Your task to perform on an android device: Show me the alarms in the clock app Image 0: 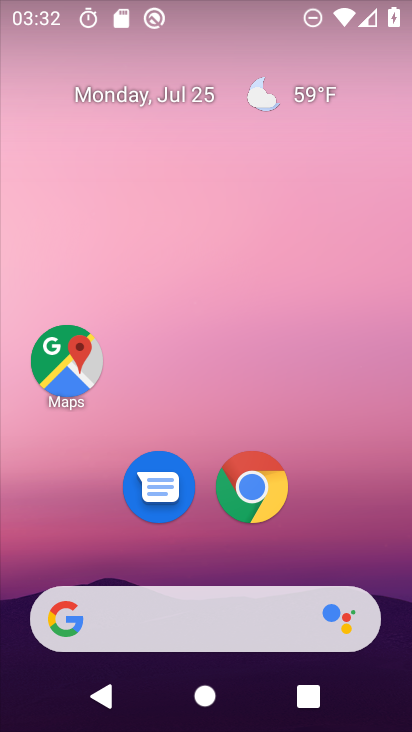
Step 0: drag from (212, 517) to (252, 9)
Your task to perform on an android device: Show me the alarms in the clock app Image 1: 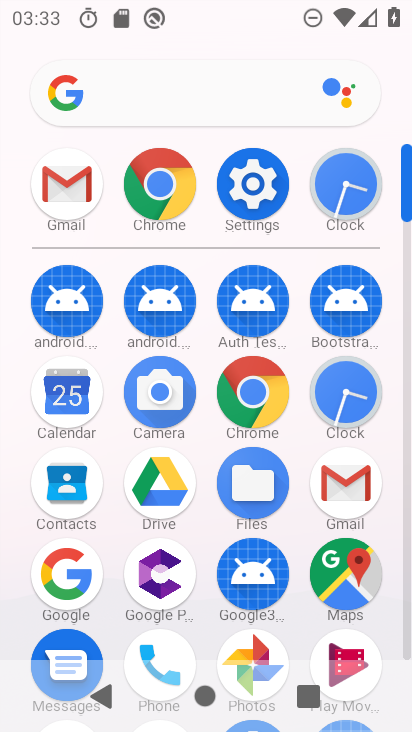
Step 1: click (335, 393)
Your task to perform on an android device: Show me the alarms in the clock app Image 2: 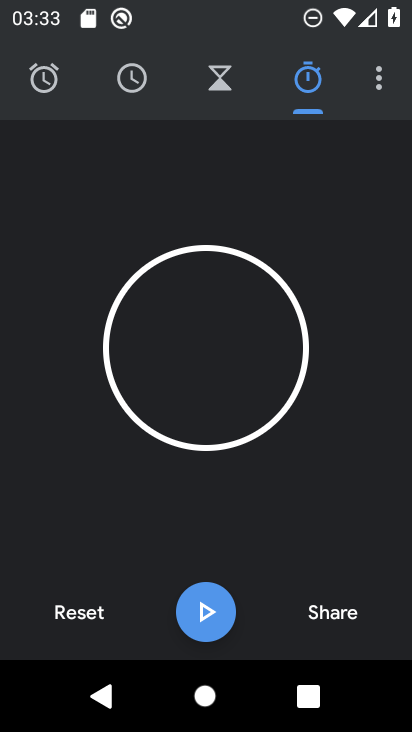
Step 2: click (46, 61)
Your task to perform on an android device: Show me the alarms in the clock app Image 3: 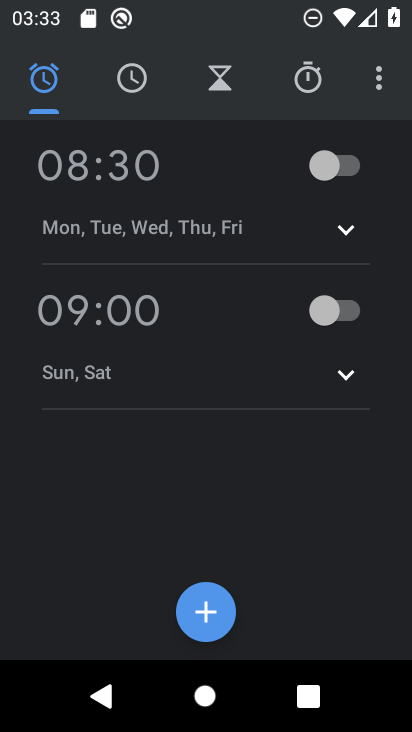
Step 3: task complete